Your task to perform on an android device: What's the weather going to be tomorrow? Image 0: 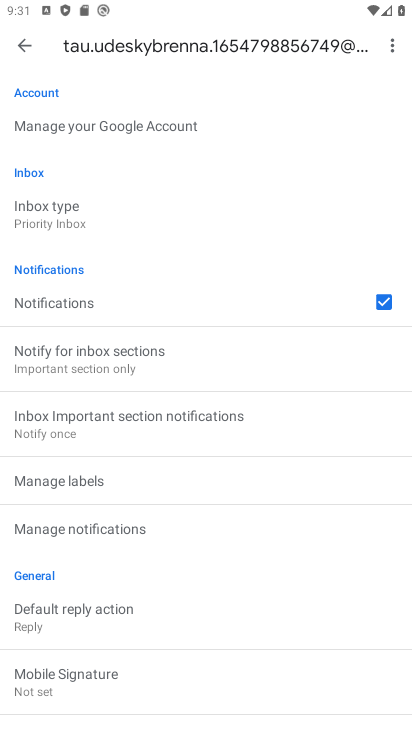
Step 0: press home button
Your task to perform on an android device: What's the weather going to be tomorrow? Image 1: 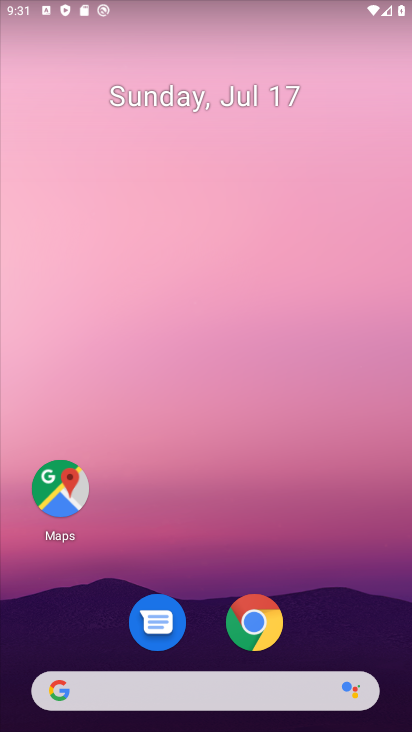
Step 1: click (235, 690)
Your task to perform on an android device: What's the weather going to be tomorrow? Image 2: 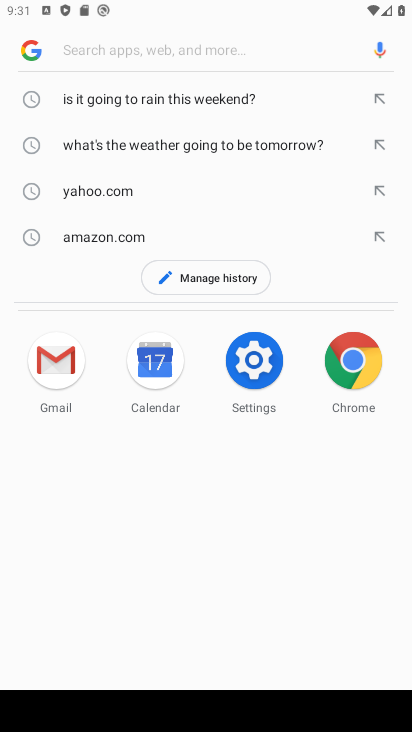
Step 2: click (297, 142)
Your task to perform on an android device: What's the weather going to be tomorrow? Image 3: 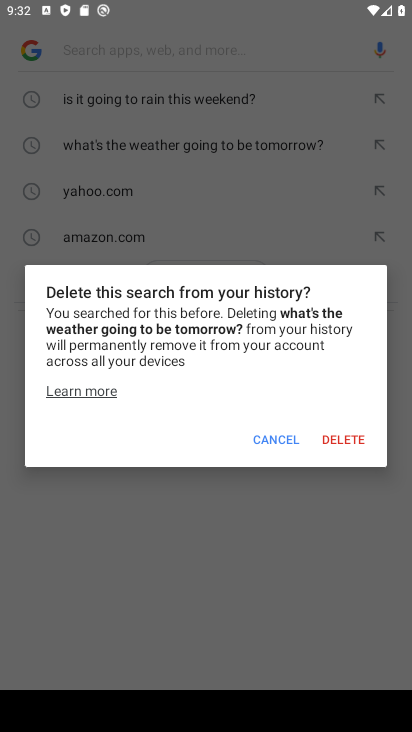
Step 3: click (340, 439)
Your task to perform on an android device: What's the weather going to be tomorrow? Image 4: 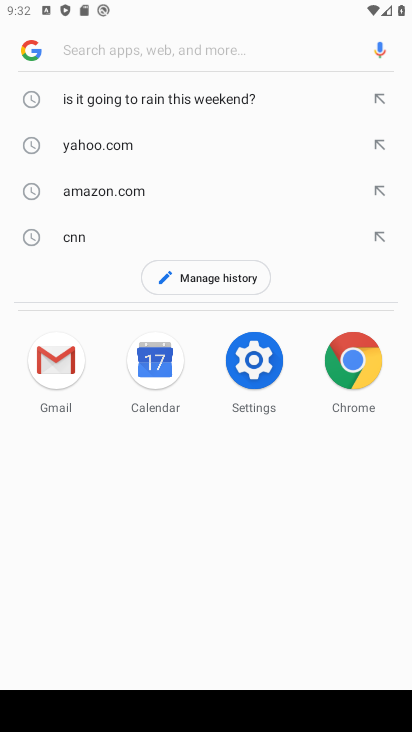
Step 4: type "What's the weather going to be tomorrow?"
Your task to perform on an android device: What's the weather going to be tomorrow? Image 5: 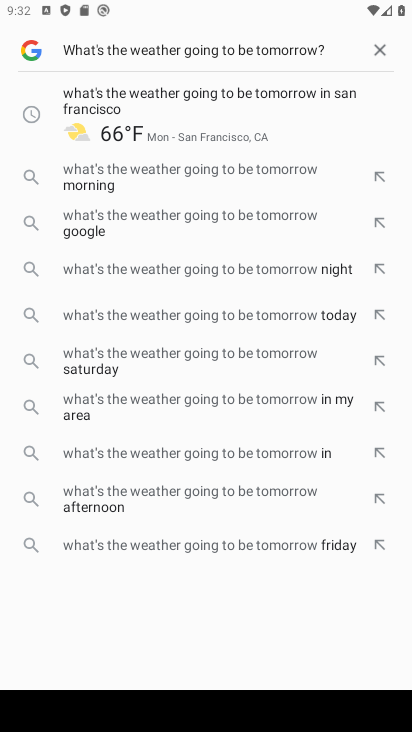
Step 5: click (232, 48)
Your task to perform on an android device: What's the weather going to be tomorrow? Image 6: 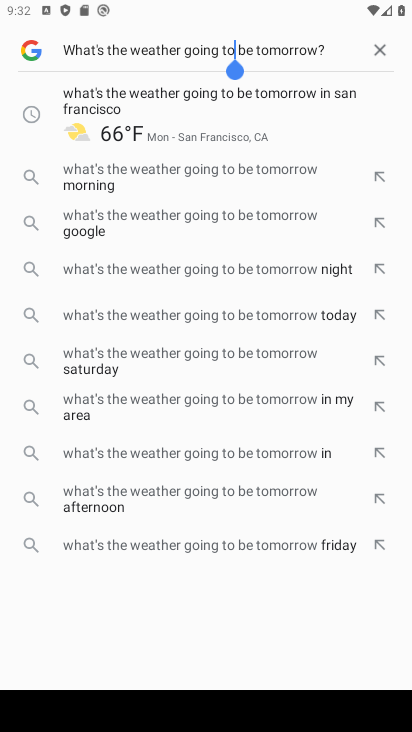
Step 6: press enter
Your task to perform on an android device: What's the weather going to be tomorrow? Image 7: 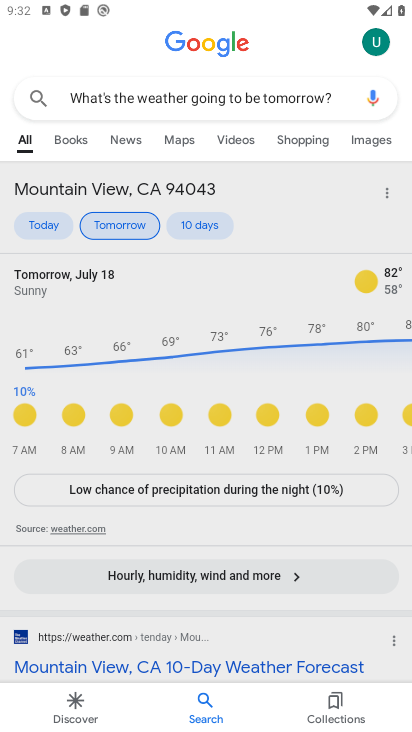
Step 7: task complete